Your task to perform on an android device: turn off airplane mode Image 0: 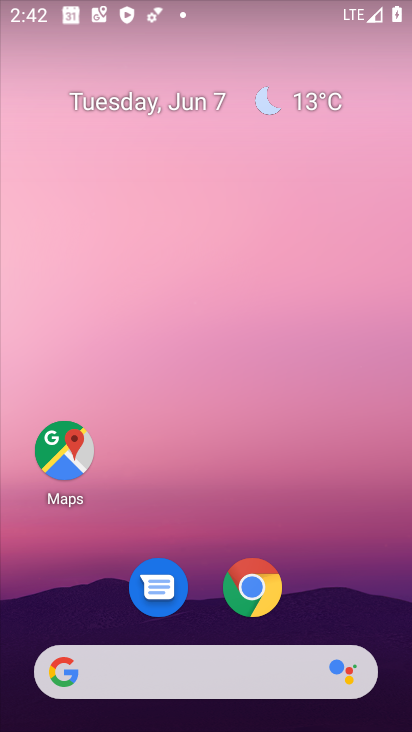
Step 0: drag from (203, 633) to (206, 3)
Your task to perform on an android device: turn off airplane mode Image 1: 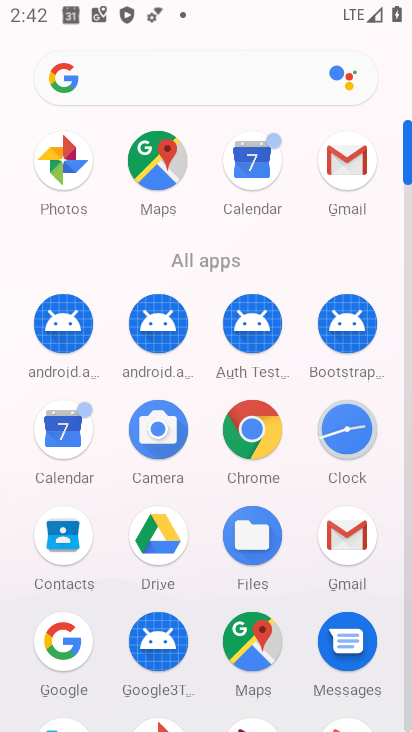
Step 1: drag from (200, 591) to (212, 6)
Your task to perform on an android device: turn off airplane mode Image 2: 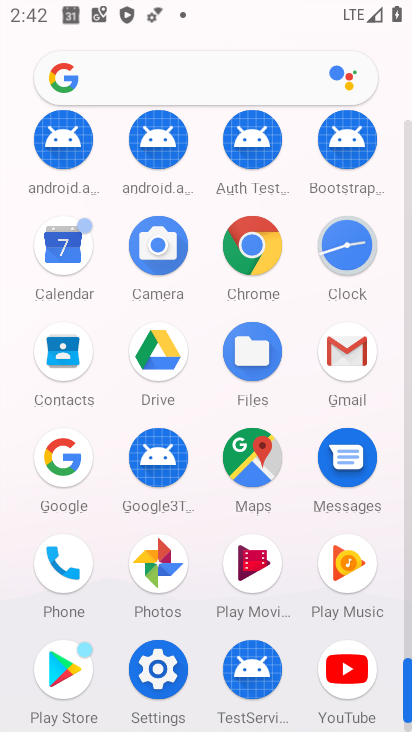
Step 2: click (157, 674)
Your task to perform on an android device: turn off airplane mode Image 3: 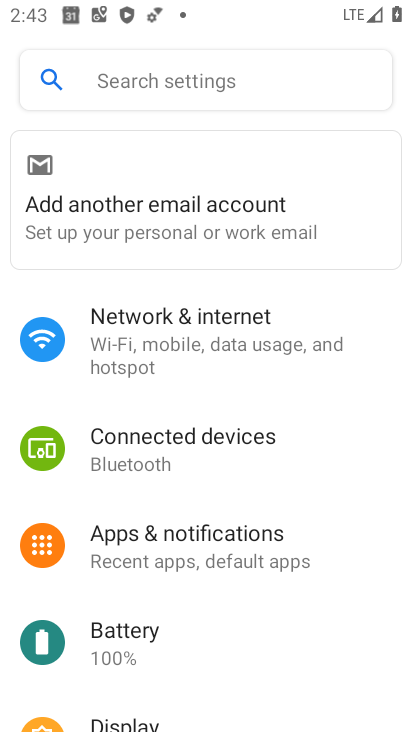
Step 3: click (181, 324)
Your task to perform on an android device: turn off airplane mode Image 4: 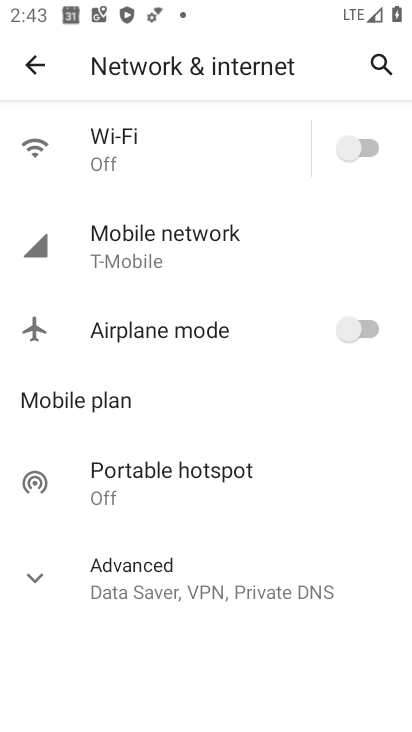
Step 4: task complete